Your task to perform on an android device: turn notification dots off Image 0: 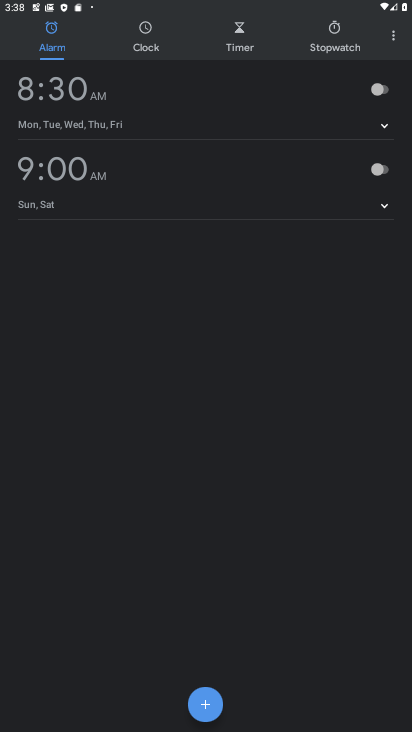
Step 0: press home button
Your task to perform on an android device: turn notification dots off Image 1: 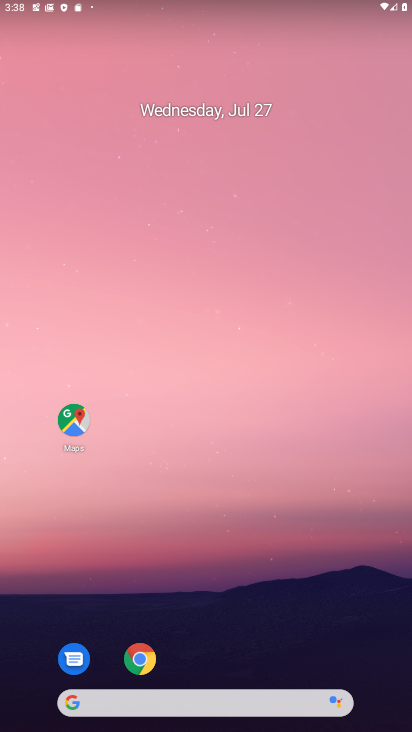
Step 1: drag from (188, 670) to (171, 182)
Your task to perform on an android device: turn notification dots off Image 2: 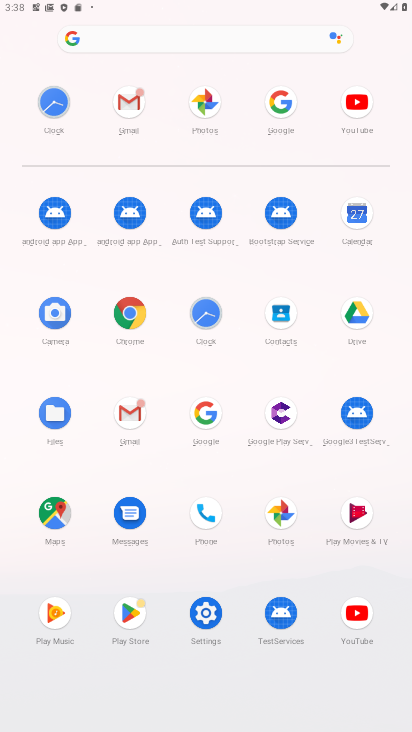
Step 2: click (205, 614)
Your task to perform on an android device: turn notification dots off Image 3: 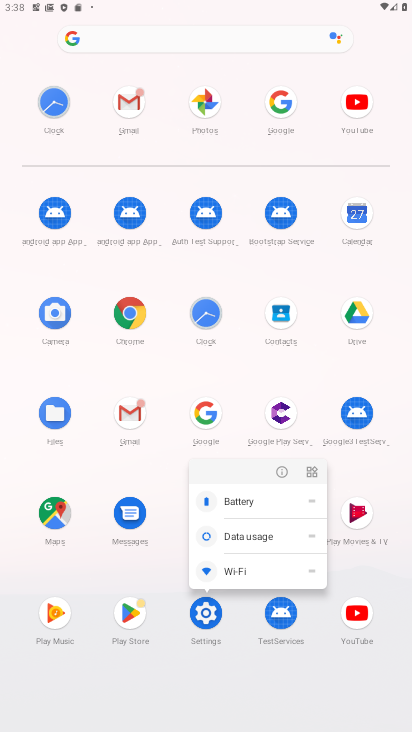
Step 3: click (207, 610)
Your task to perform on an android device: turn notification dots off Image 4: 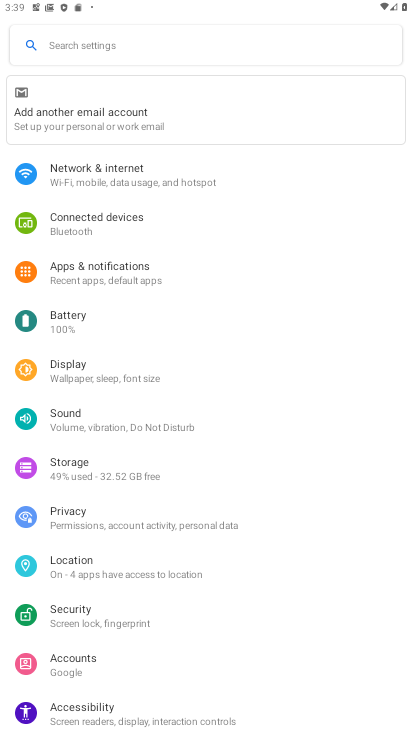
Step 4: click (136, 272)
Your task to perform on an android device: turn notification dots off Image 5: 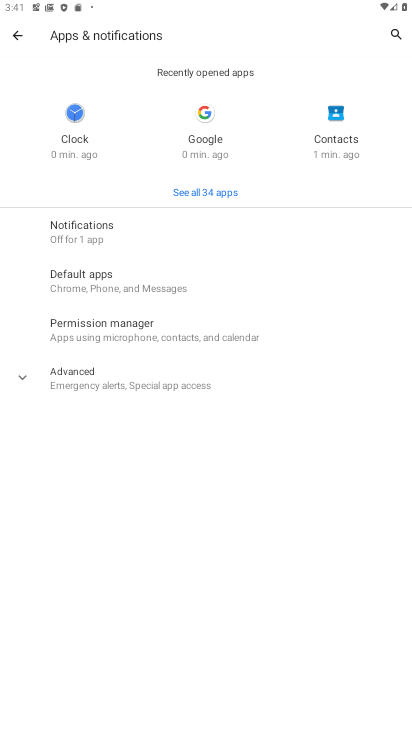
Step 5: click (101, 378)
Your task to perform on an android device: turn notification dots off Image 6: 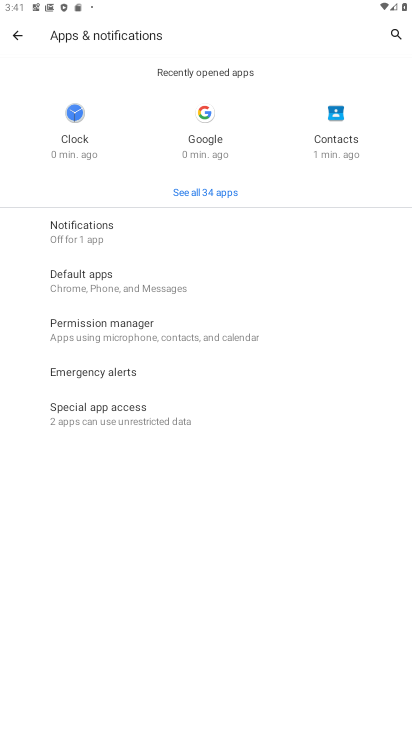
Step 6: click (70, 234)
Your task to perform on an android device: turn notification dots off Image 7: 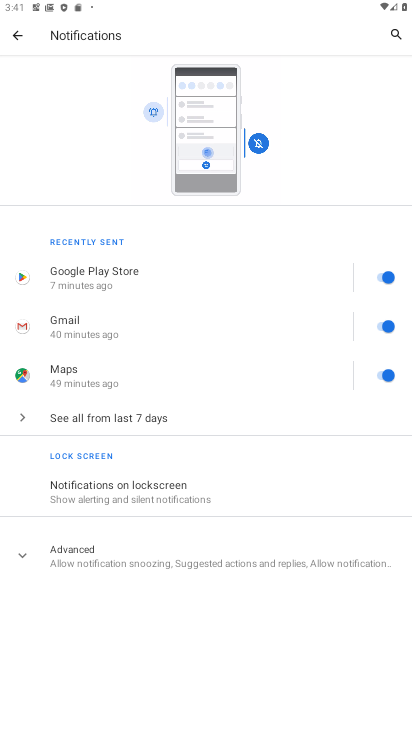
Step 7: click (138, 560)
Your task to perform on an android device: turn notification dots off Image 8: 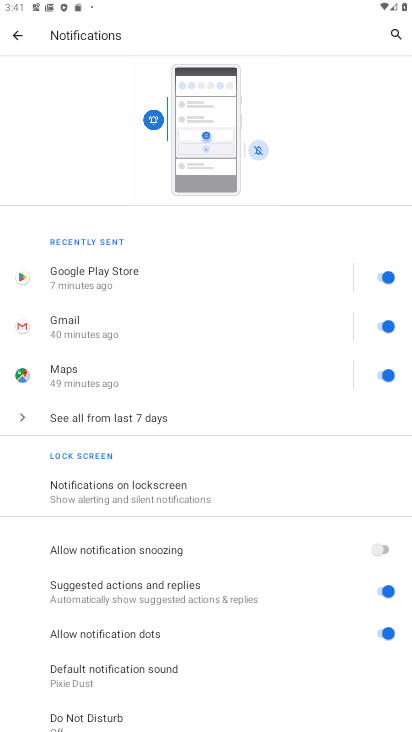
Step 8: click (381, 631)
Your task to perform on an android device: turn notification dots off Image 9: 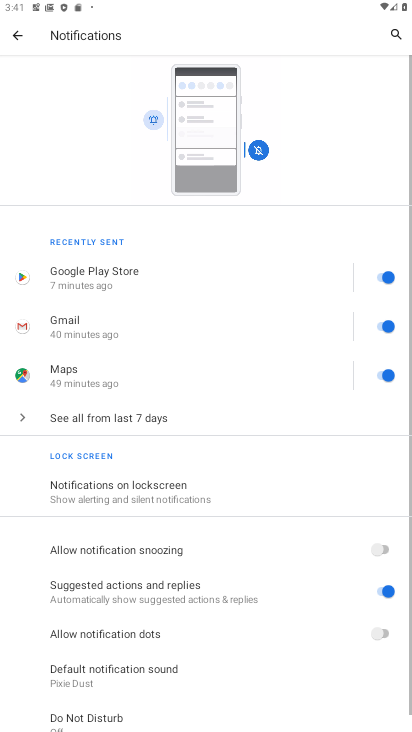
Step 9: task complete